Your task to perform on an android device: turn on data saver in the chrome app Image 0: 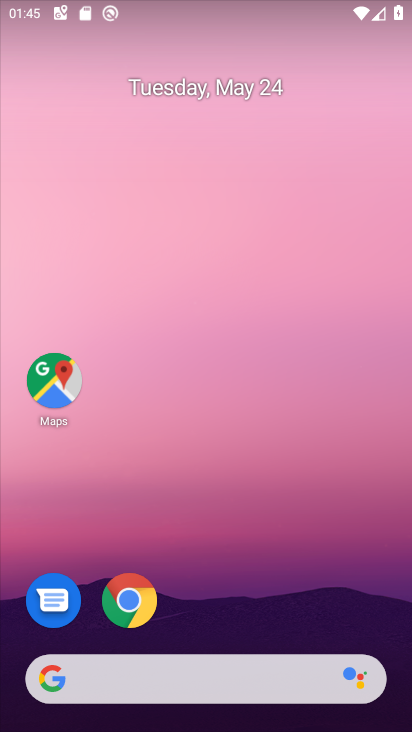
Step 0: click (137, 607)
Your task to perform on an android device: turn on data saver in the chrome app Image 1: 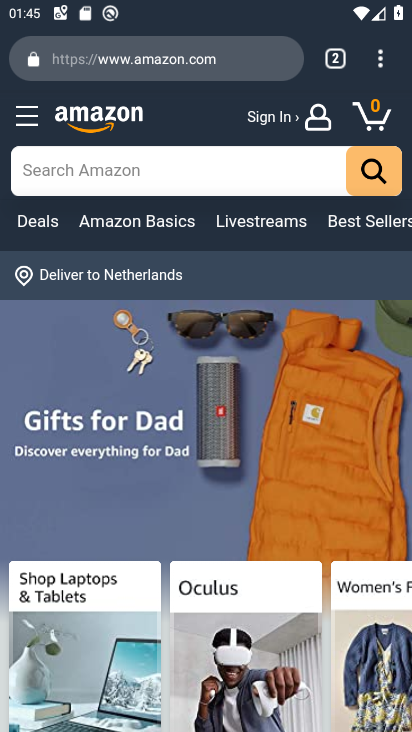
Step 1: click (386, 70)
Your task to perform on an android device: turn on data saver in the chrome app Image 2: 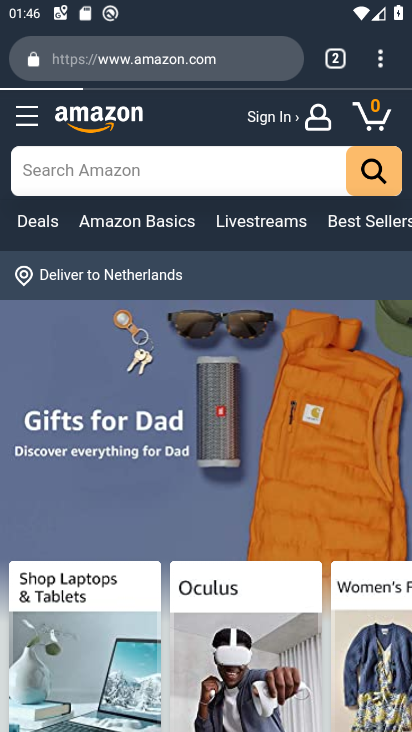
Step 2: click (386, 70)
Your task to perform on an android device: turn on data saver in the chrome app Image 3: 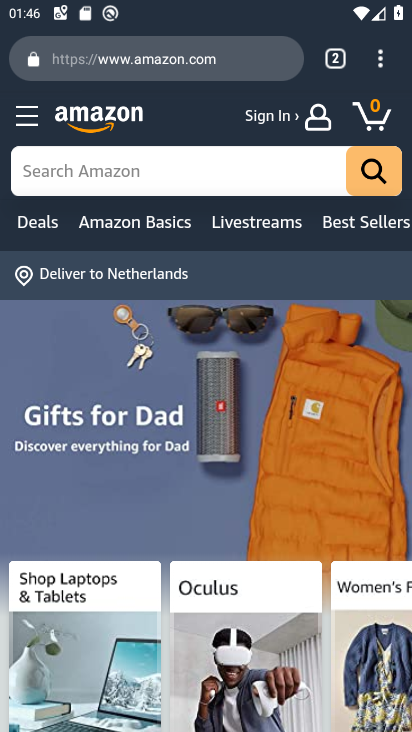
Step 3: click (387, 71)
Your task to perform on an android device: turn on data saver in the chrome app Image 4: 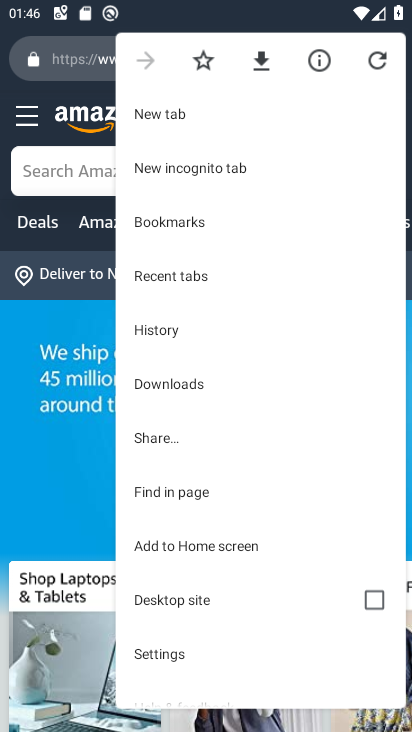
Step 4: click (200, 648)
Your task to perform on an android device: turn on data saver in the chrome app Image 5: 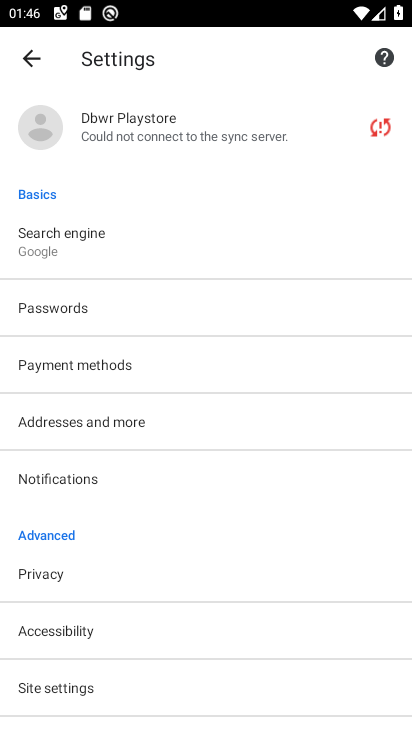
Step 5: drag from (142, 639) to (174, 253)
Your task to perform on an android device: turn on data saver in the chrome app Image 6: 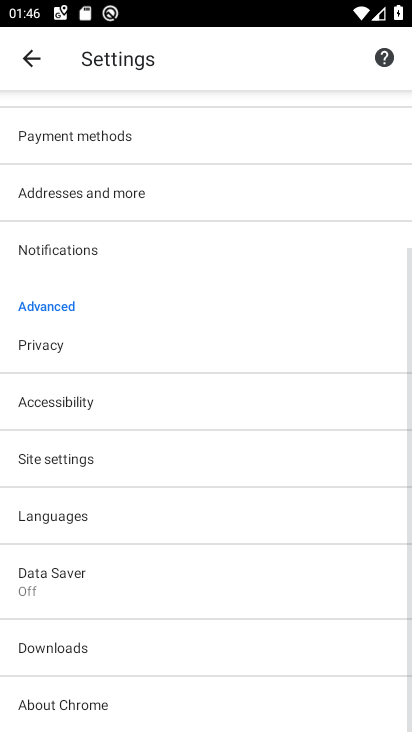
Step 6: click (119, 562)
Your task to perform on an android device: turn on data saver in the chrome app Image 7: 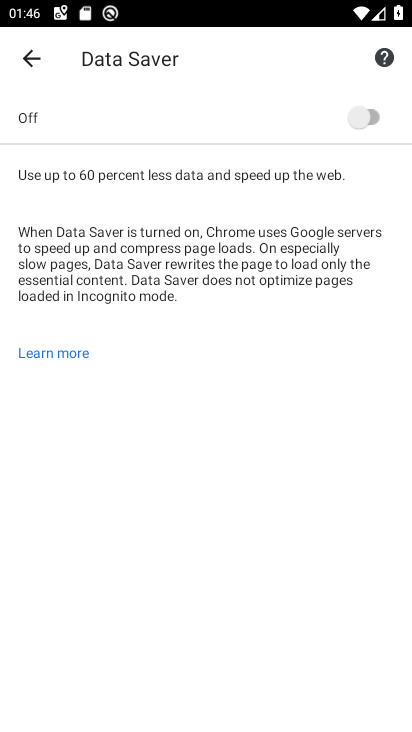
Step 7: click (369, 124)
Your task to perform on an android device: turn on data saver in the chrome app Image 8: 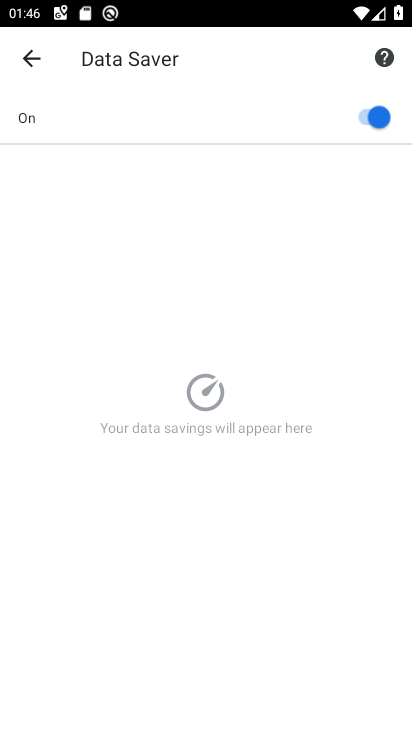
Step 8: task complete